Your task to perform on an android device: What's the weather? Image 0: 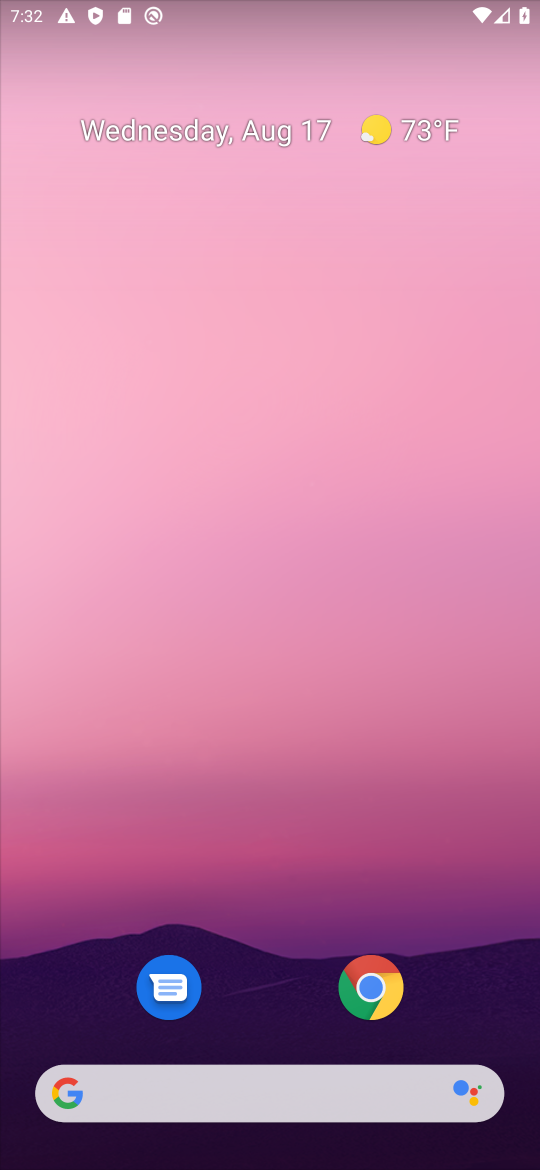
Step 0: drag from (484, 1017) to (262, 52)
Your task to perform on an android device: What's the weather? Image 1: 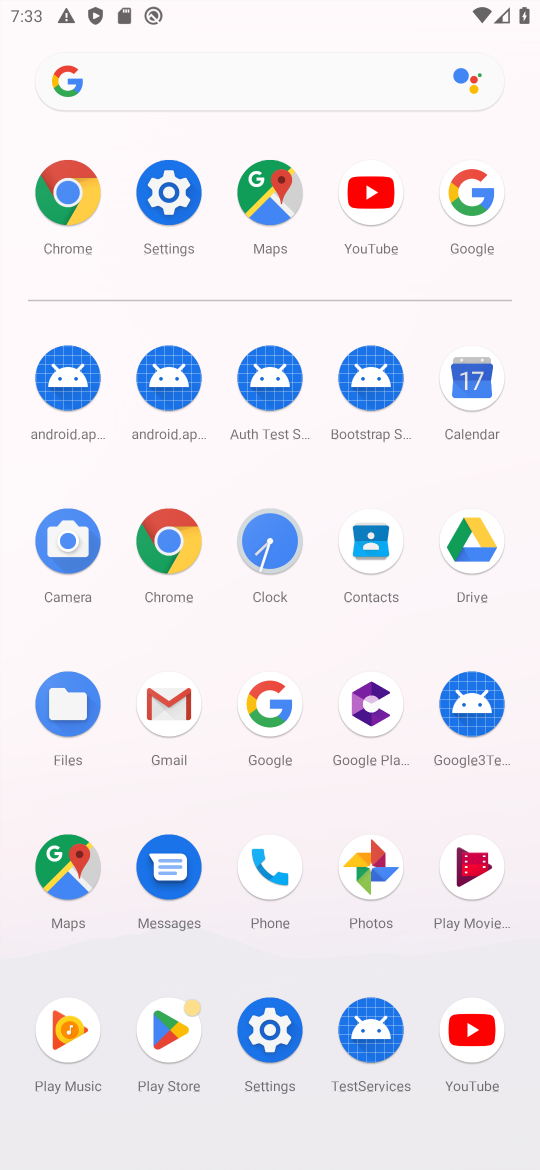
Step 1: click (262, 710)
Your task to perform on an android device: What's the weather? Image 2: 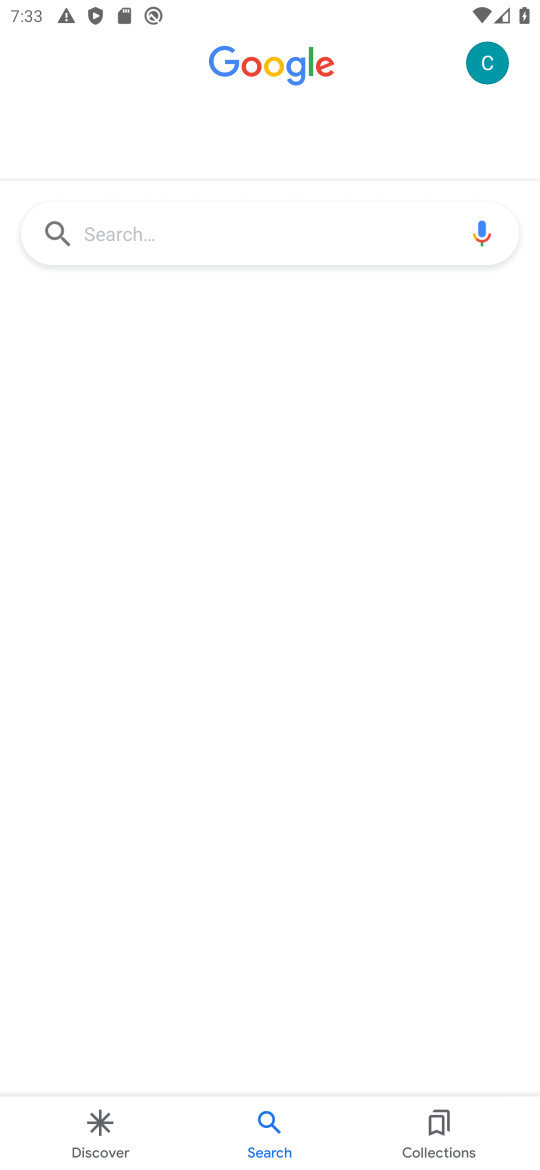
Step 2: click (149, 242)
Your task to perform on an android device: What's the weather? Image 3: 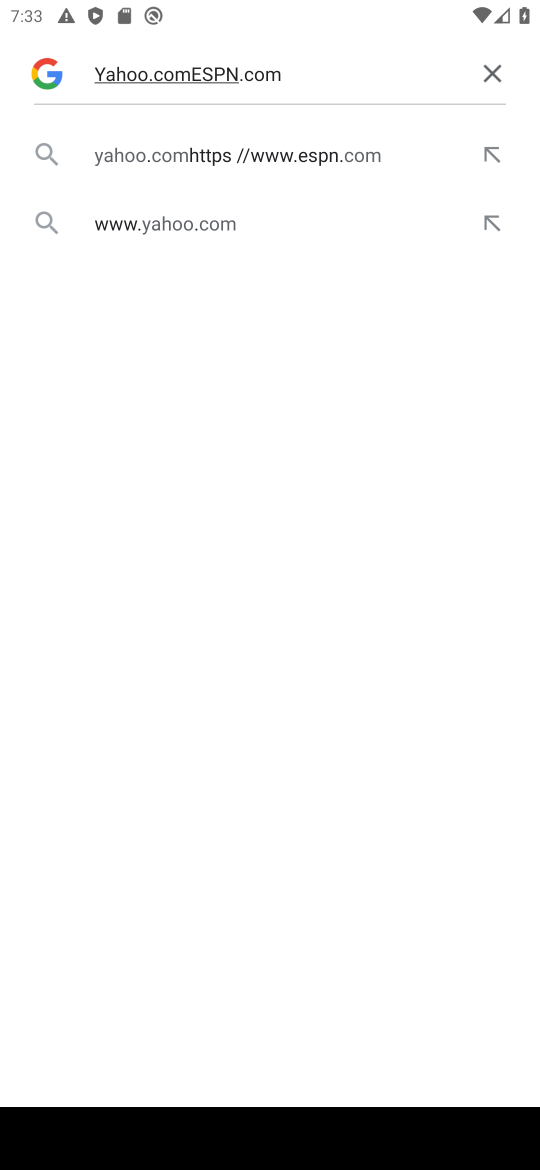
Step 3: click (490, 75)
Your task to perform on an android device: What's the weather? Image 4: 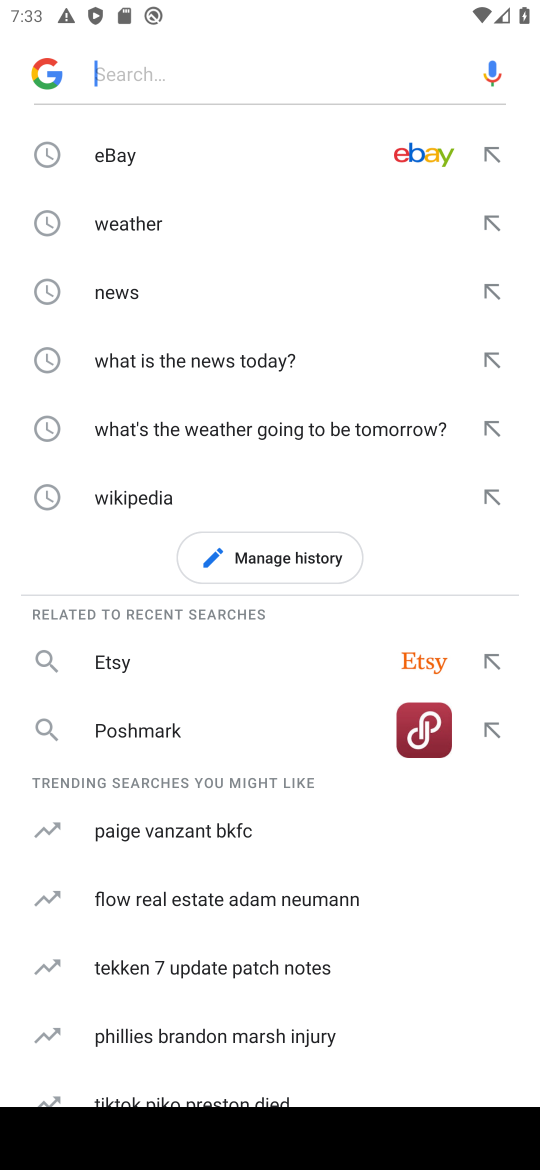
Step 4: type "What's the weather?"
Your task to perform on an android device: What's the weather? Image 5: 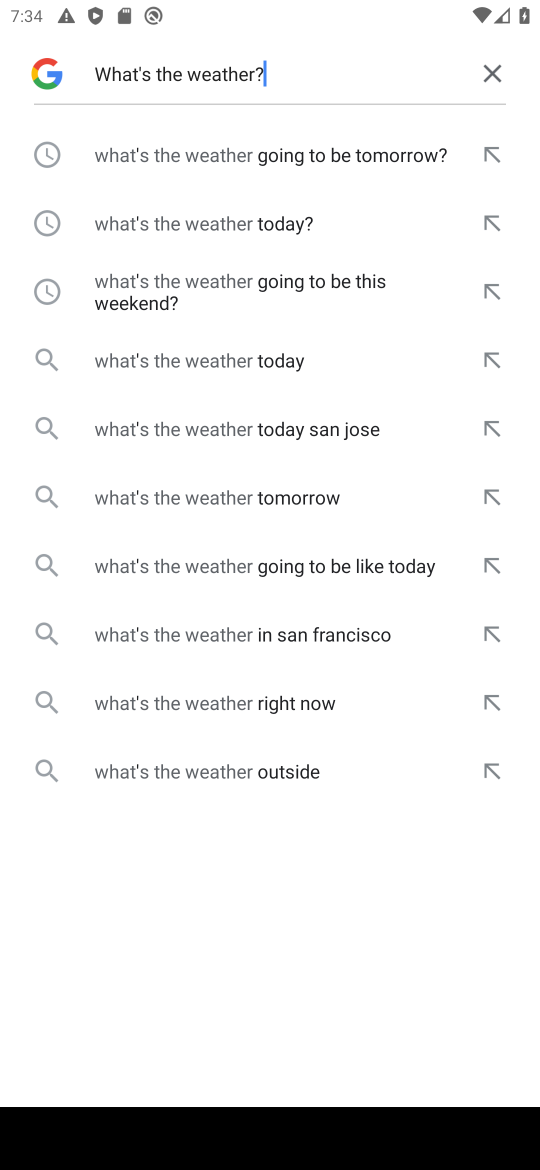
Step 5: task complete